Your task to perform on an android device: empty trash in the gmail app Image 0: 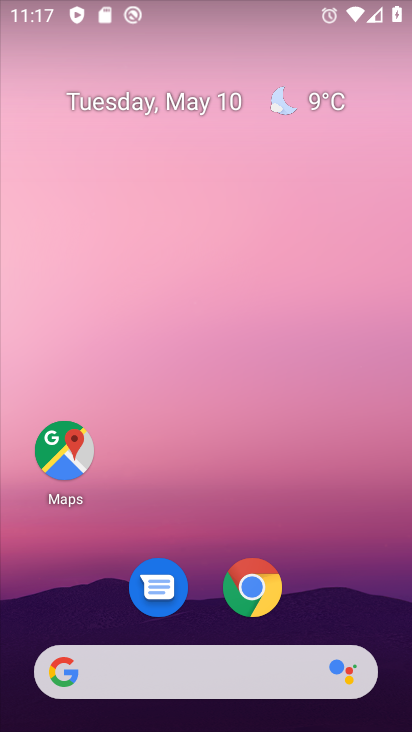
Step 0: drag from (329, 613) to (348, 0)
Your task to perform on an android device: empty trash in the gmail app Image 1: 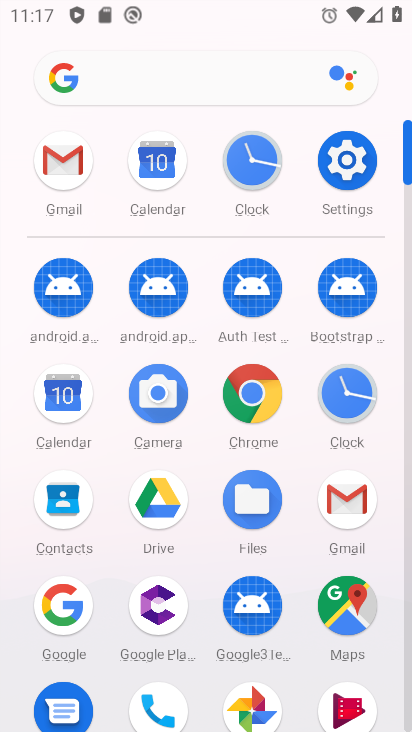
Step 1: click (68, 162)
Your task to perform on an android device: empty trash in the gmail app Image 2: 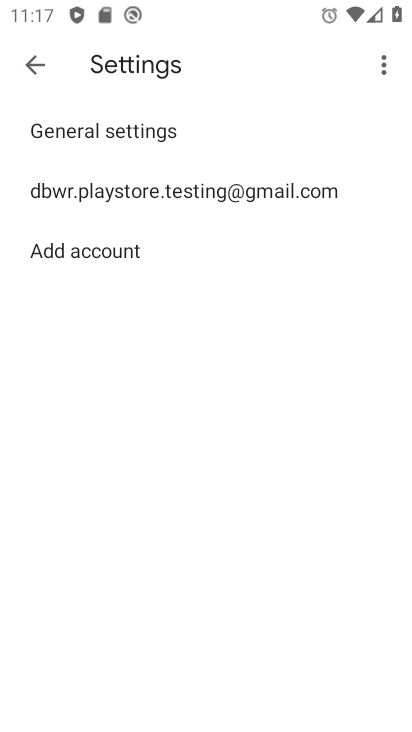
Step 2: click (31, 71)
Your task to perform on an android device: empty trash in the gmail app Image 3: 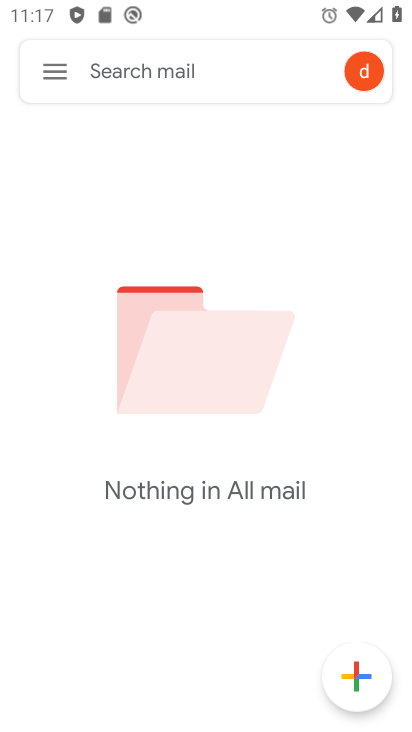
Step 3: click (55, 71)
Your task to perform on an android device: empty trash in the gmail app Image 4: 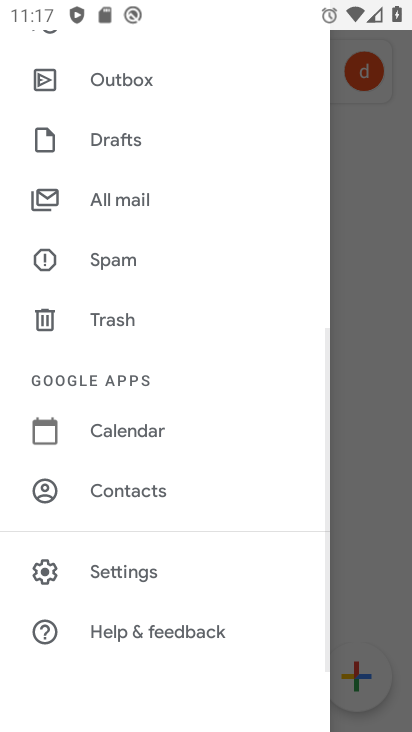
Step 4: click (113, 311)
Your task to perform on an android device: empty trash in the gmail app Image 5: 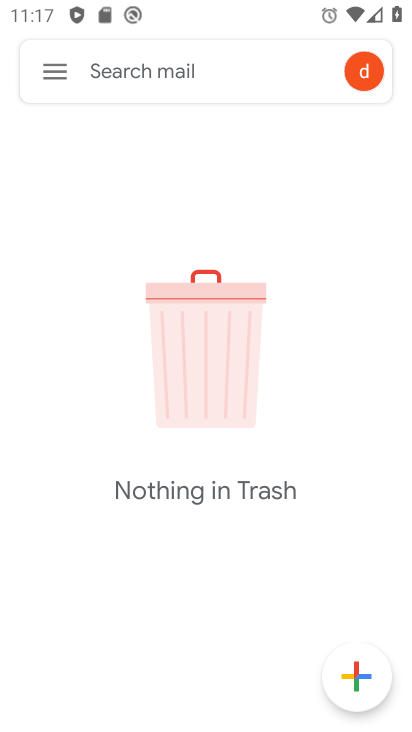
Step 5: task complete